Your task to perform on an android device: Open Amazon Image 0: 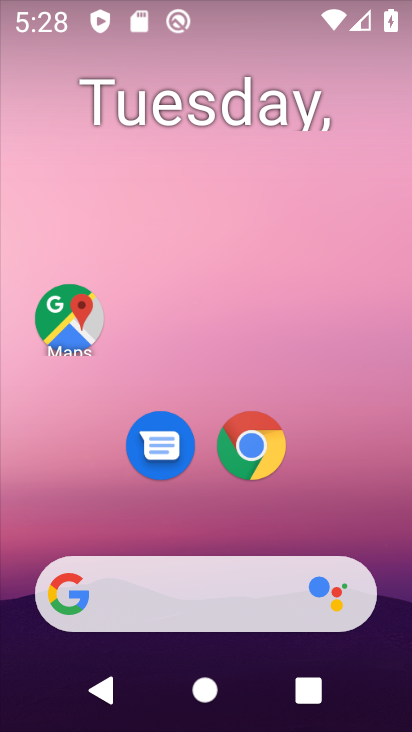
Step 0: click (411, 433)
Your task to perform on an android device: Open Amazon Image 1: 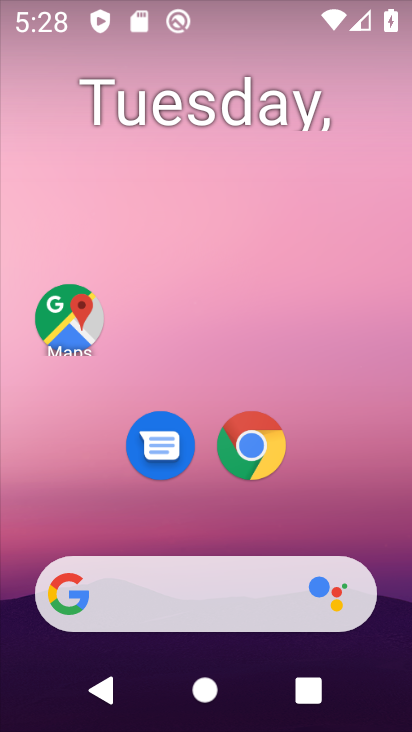
Step 1: drag from (332, 490) to (310, 177)
Your task to perform on an android device: Open Amazon Image 2: 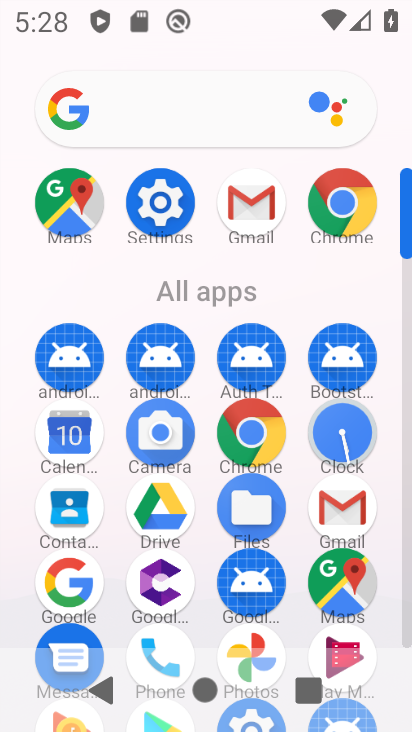
Step 2: click (235, 434)
Your task to perform on an android device: Open Amazon Image 3: 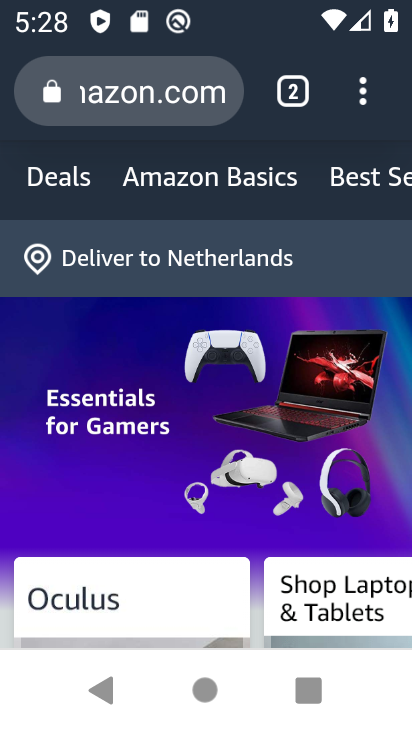
Step 3: click (356, 91)
Your task to perform on an android device: Open Amazon Image 4: 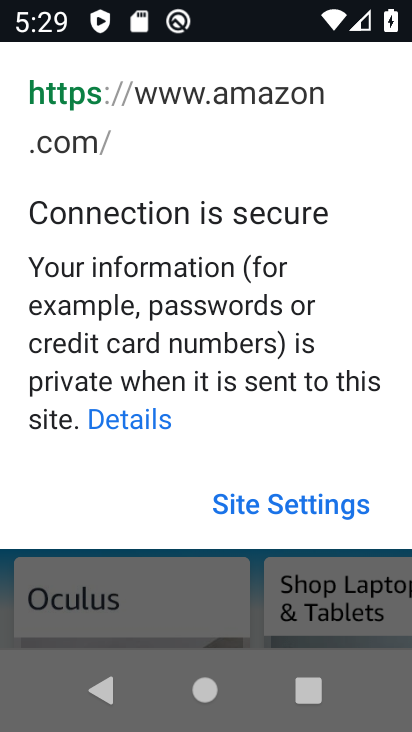
Step 4: click (261, 613)
Your task to perform on an android device: Open Amazon Image 5: 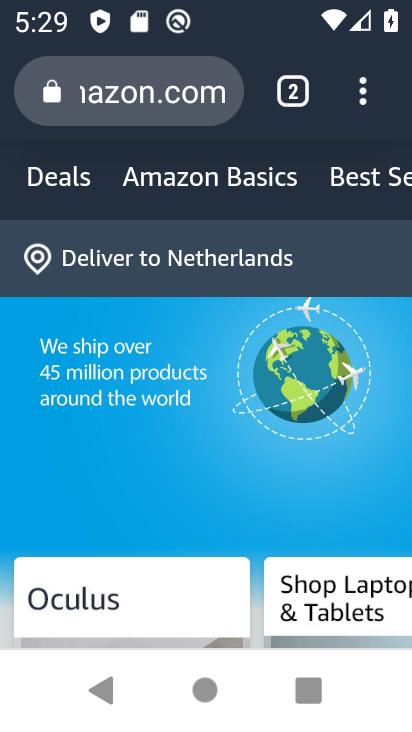
Step 5: task complete